Your task to perform on an android device: turn on the 12-hour format for clock Image 0: 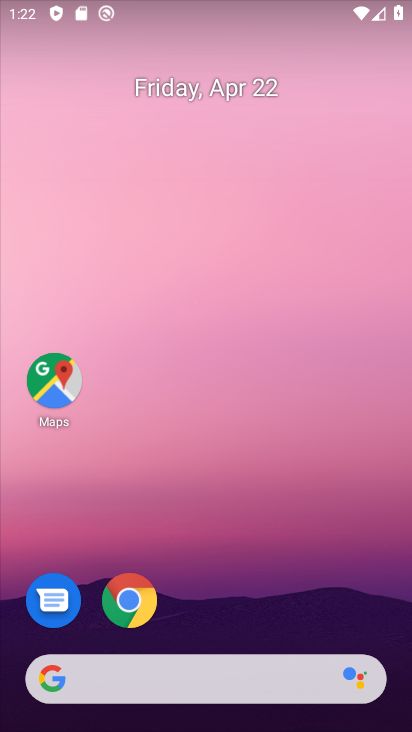
Step 0: drag from (220, 631) to (307, 173)
Your task to perform on an android device: turn on the 12-hour format for clock Image 1: 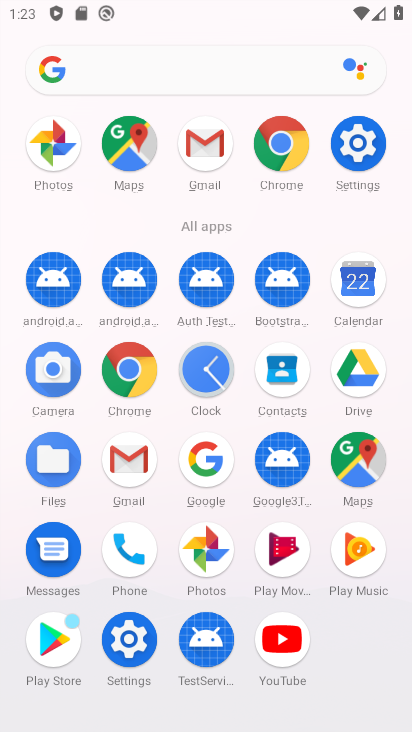
Step 1: click (199, 385)
Your task to perform on an android device: turn on the 12-hour format for clock Image 2: 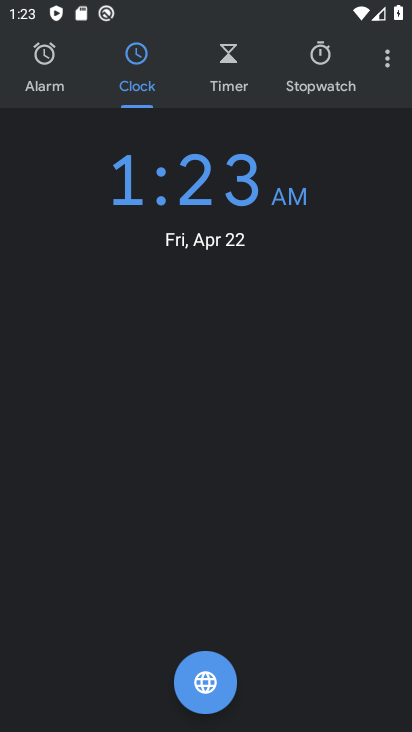
Step 2: click (391, 64)
Your task to perform on an android device: turn on the 12-hour format for clock Image 3: 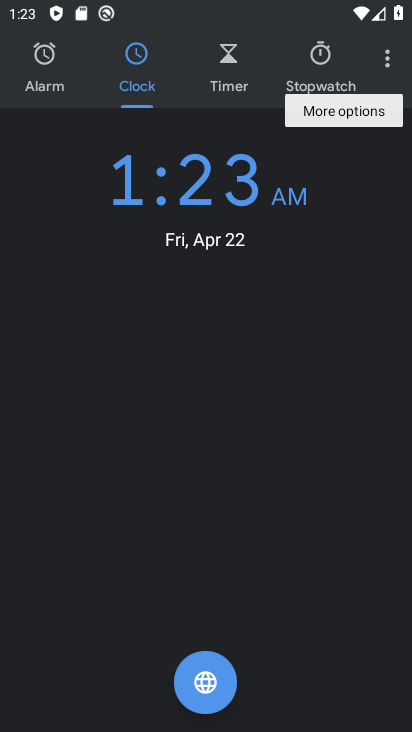
Step 3: click (391, 67)
Your task to perform on an android device: turn on the 12-hour format for clock Image 4: 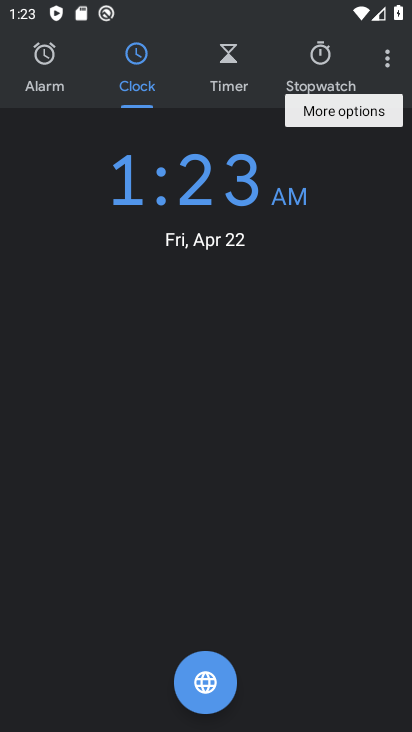
Step 4: click (383, 118)
Your task to perform on an android device: turn on the 12-hour format for clock Image 5: 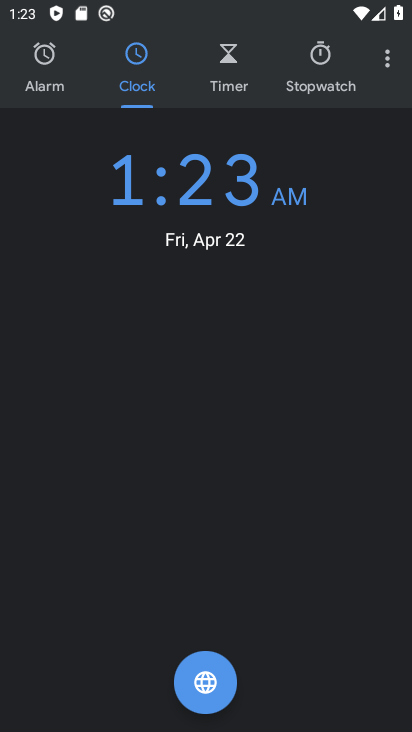
Step 5: click (388, 63)
Your task to perform on an android device: turn on the 12-hour format for clock Image 6: 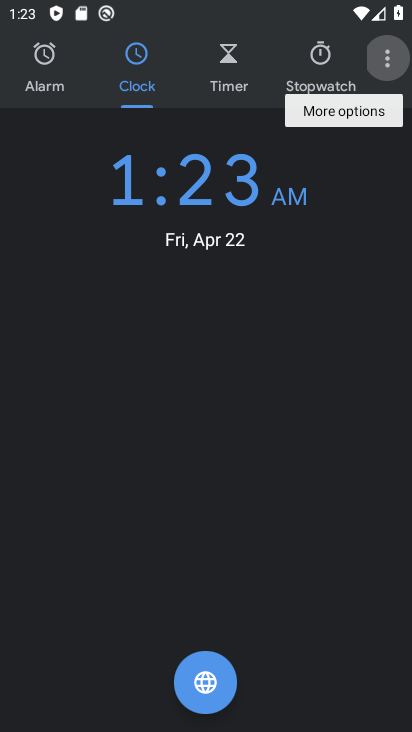
Step 6: click (387, 50)
Your task to perform on an android device: turn on the 12-hour format for clock Image 7: 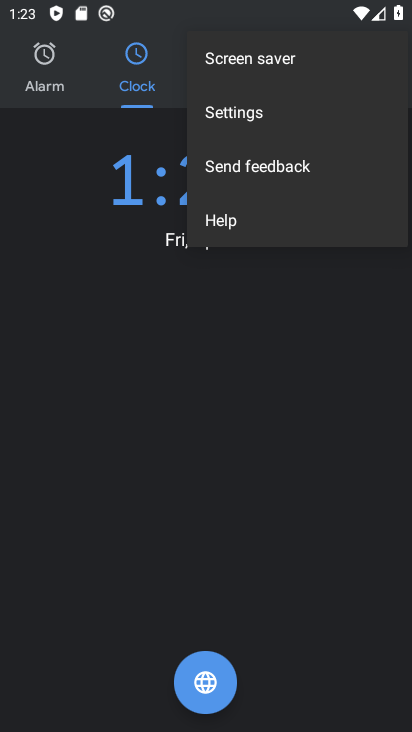
Step 7: click (327, 104)
Your task to perform on an android device: turn on the 12-hour format for clock Image 8: 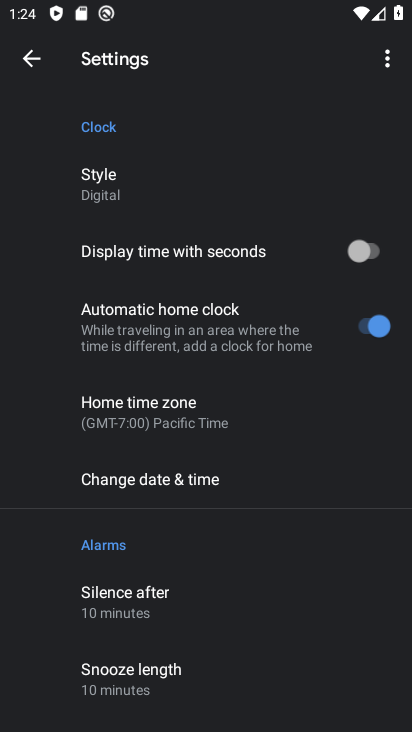
Step 8: click (274, 488)
Your task to perform on an android device: turn on the 12-hour format for clock Image 9: 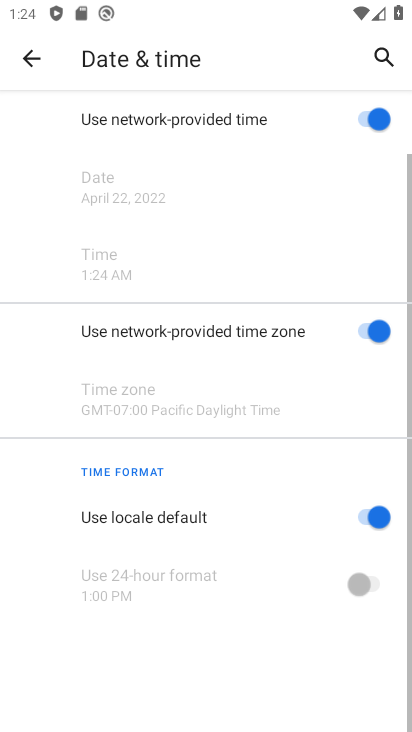
Step 9: task complete